Your task to perform on an android device: When is my next appointment? Image 0: 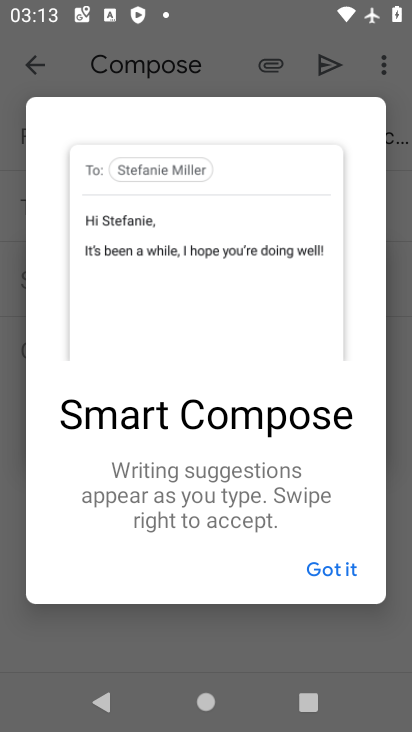
Step 0: press home button
Your task to perform on an android device: When is my next appointment? Image 1: 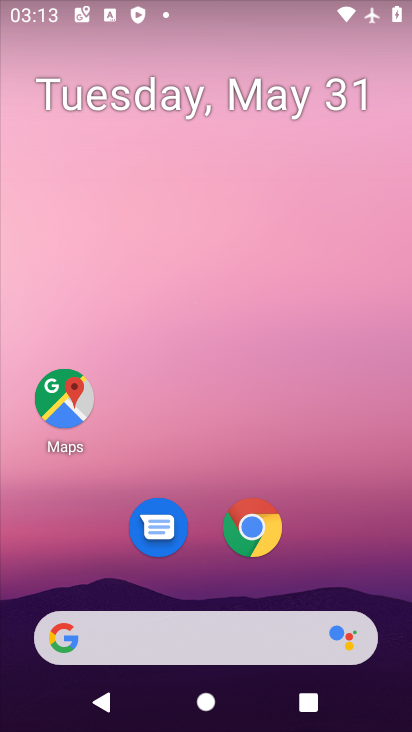
Step 1: drag from (402, 630) to (316, 85)
Your task to perform on an android device: When is my next appointment? Image 2: 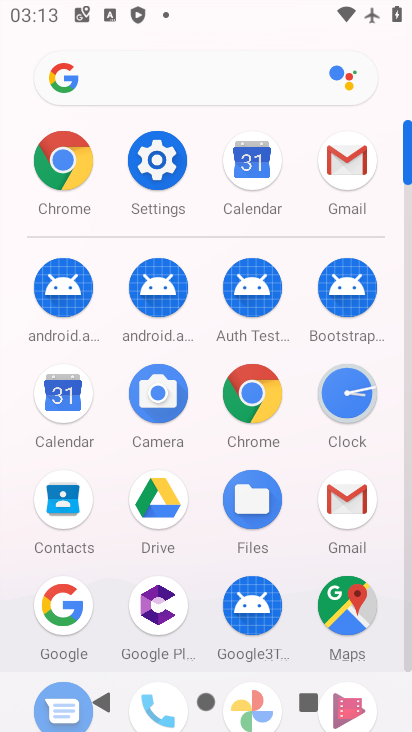
Step 2: click (408, 637)
Your task to perform on an android device: When is my next appointment? Image 3: 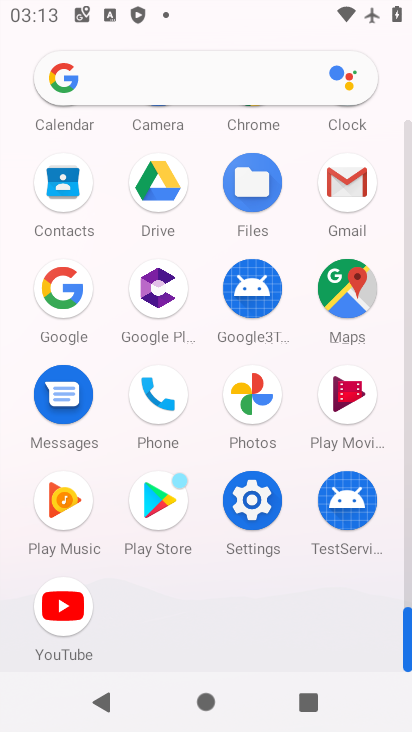
Step 3: click (409, 165)
Your task to perform on an android device: When is my next appointment? Image 4: 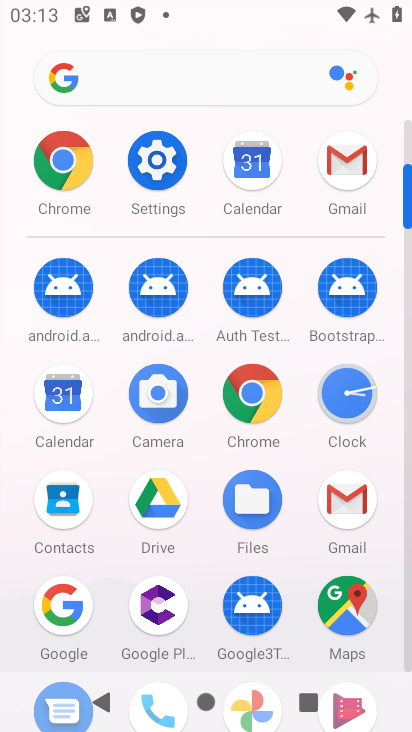
Step 4: click (63, 397)
Your task to perform on an android device: When is my next appointment? Image 5: 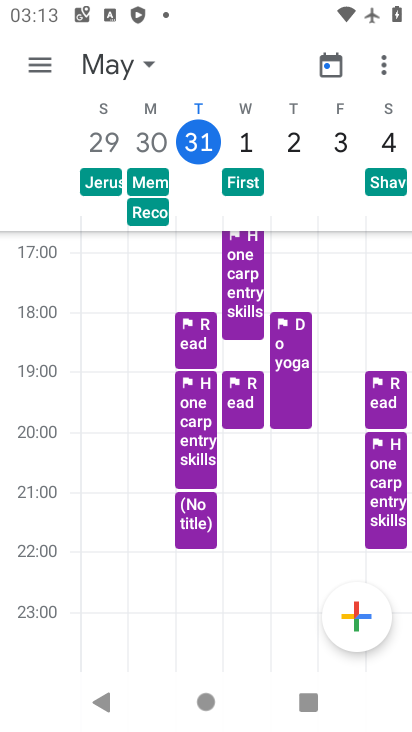
Step 5: click (44, 65)
Your task to perform on an android device: When is my next appointment? Image 6: 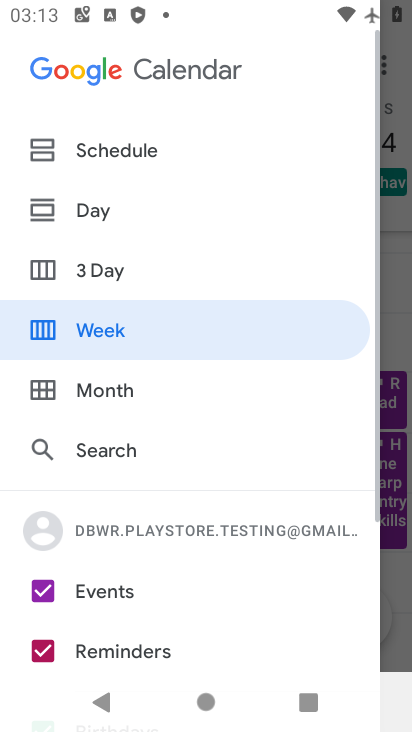
Step 6: click (116, 152)
Your task to perform on an android device: When is my next appointment? Image 7: 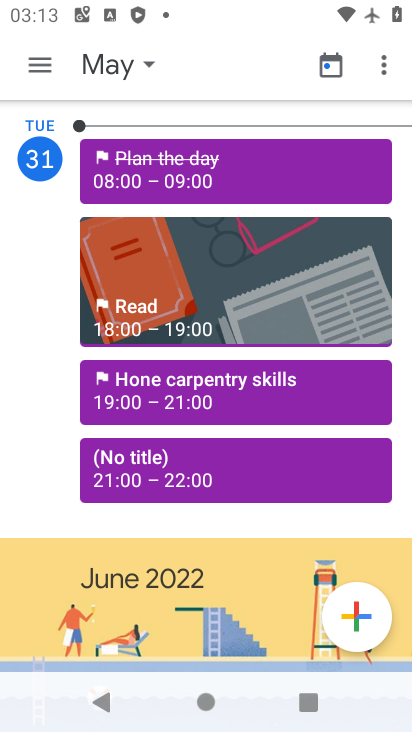
Step 7: task complete